Your task to perform on an android device: Go to Wikipedia Image 0: 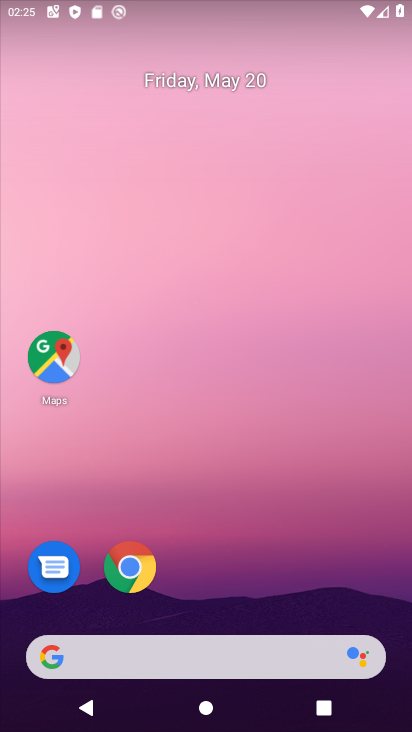
Step 0: drag from (206, 513) to (214, 15)
Your task to perform on an android device: Go to Wikipedia Image 1: 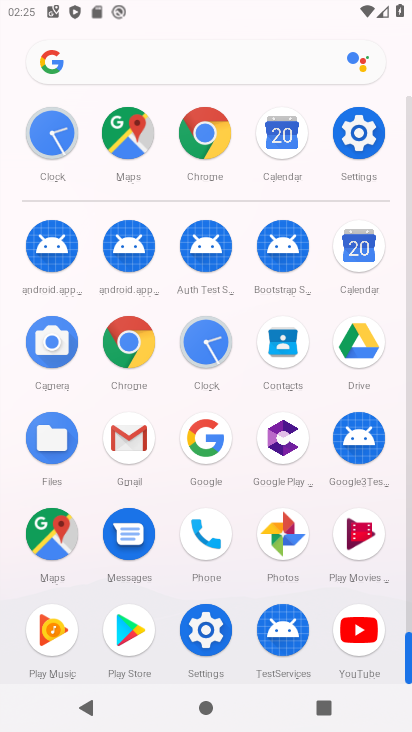
Step 1: drag from (8, 572) to (5, 265)
Your task to perform on an android device: Go to Wikipedia Image 2: 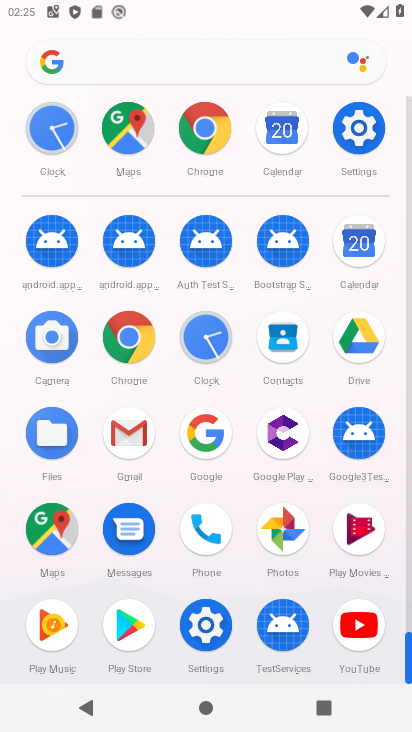
Step 2: click (132, 335)
Your task to perform on an android device: Go to Wikipedia Image 3: 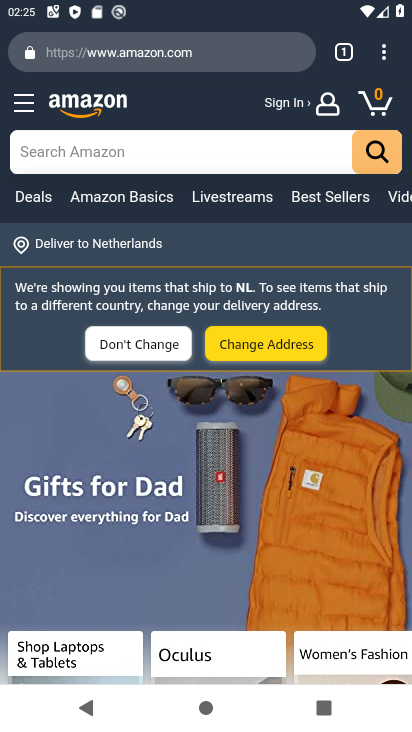
Step 3: click (166, 40)
Your task to perform on an android device: Go to Wikipedia Image 4: 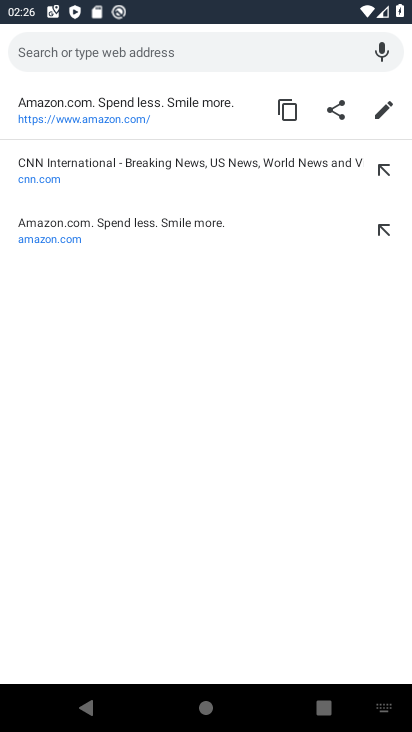
Step 4: type "Wikipedia"
Your task to perform on an android device: Go to Wikipedia Image 5: 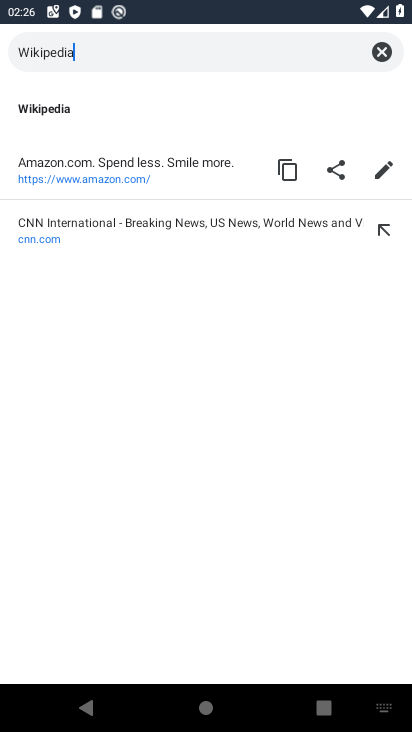
Step 5: type ""
Your task to perform on an android device: Go to Wikipedia Image 6: 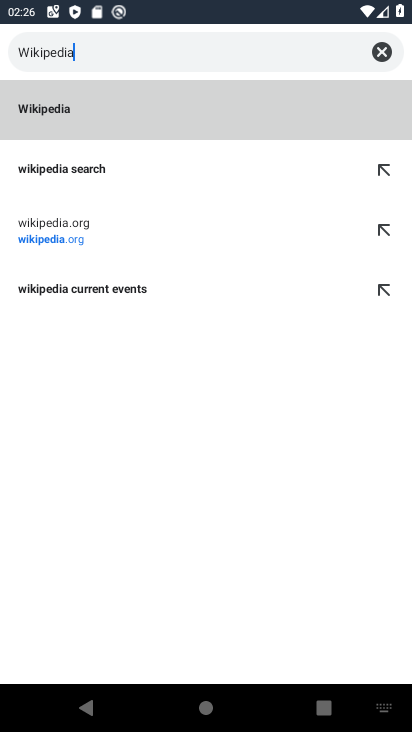
Step 6: click (112, 116)
Your task to perform on an android device: Go to Wikipedia Image 7: 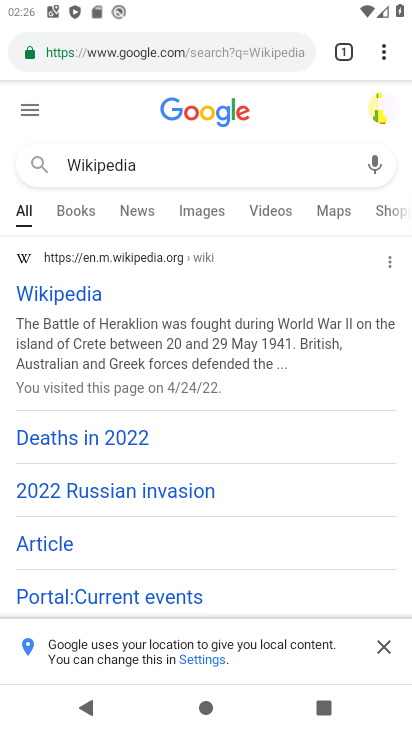
Step 7: click (43, 299)
Your task to perform on an android device: Go to Wikipedia Image 8: 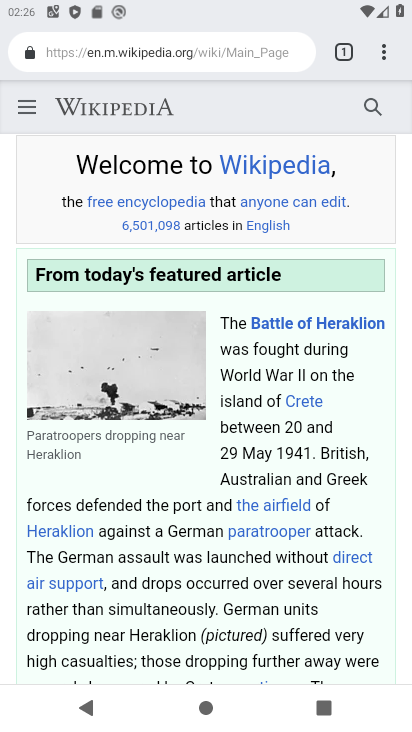
Step 8: task complete